Your task to perform on an android device: Open Wikipedia Image 0: 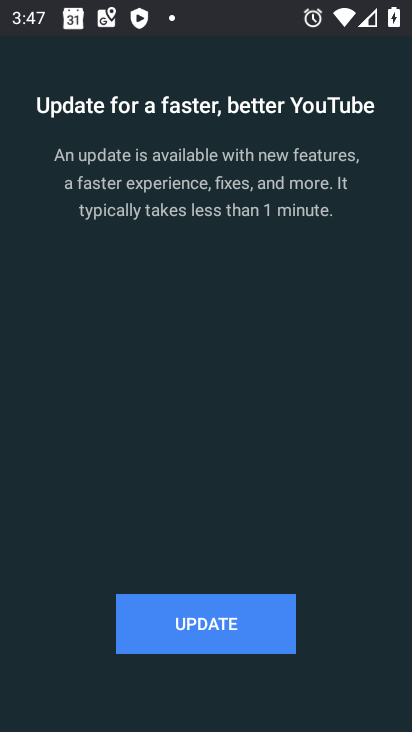
Step 0: press home button
Your task to perform on an android device: Open Wikipedia Image 1: 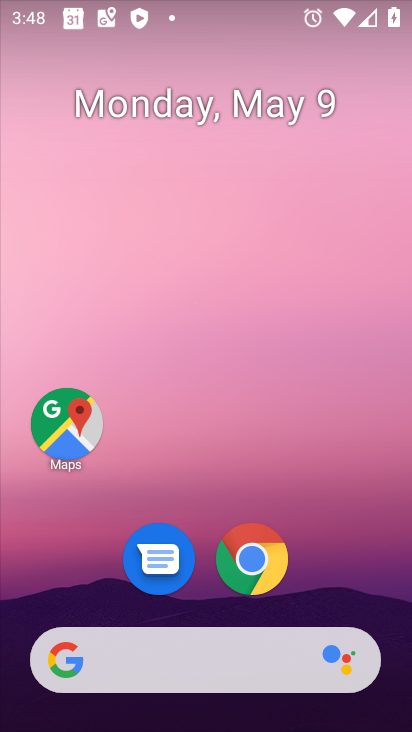
Step 1: click (247, 557)
Your task to perform on an android device: Open Wikipedia Image 2: 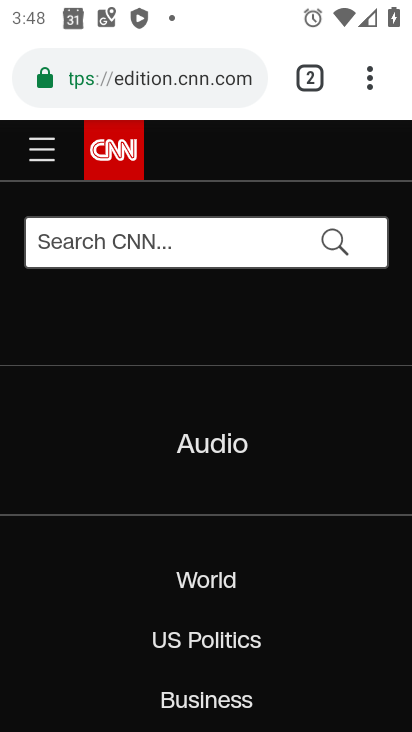
Step 2: click (369, 82)
Your task to perform on an android device: Open Wikipedia Image 3: 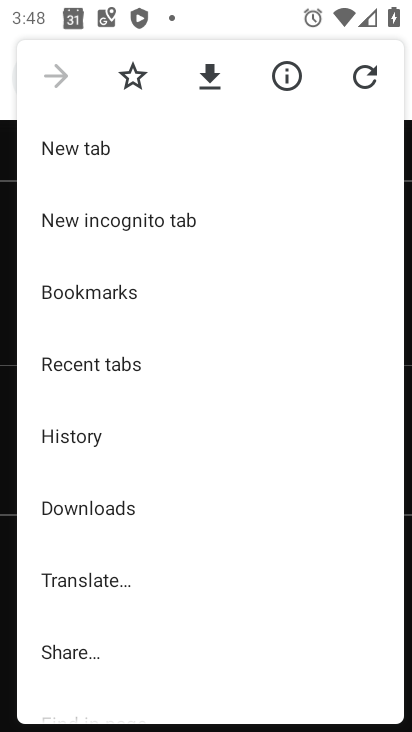
Step 3: click (85, 144)
Your task to perform on an android device: Open Wikipedia Image 4: 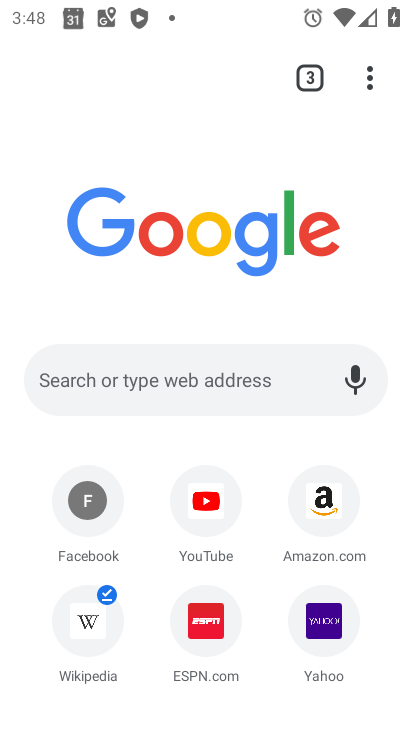
Step 4: click (94, 613)
Your task to perform on an android device: Open Wikipedia Image 5: 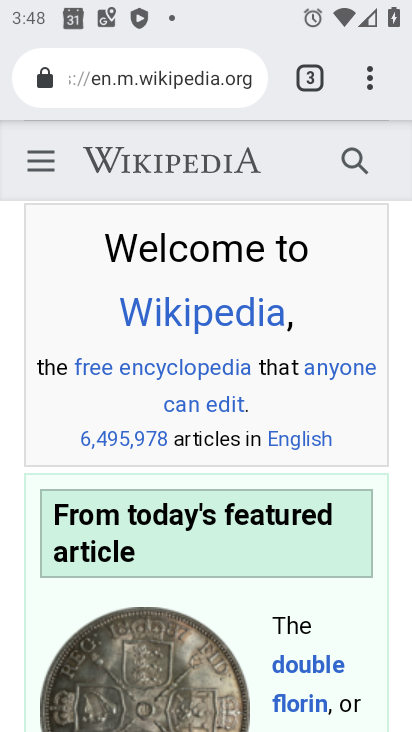
Step 5: task complete